Your task to perform on an android device: change your default location settings in chrome Image 0: 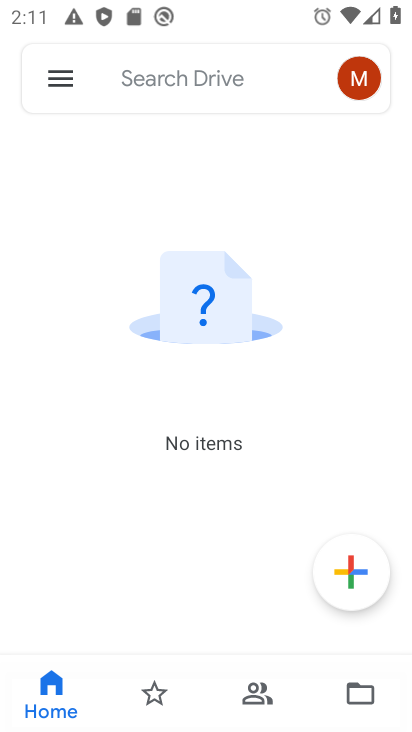
Step 0: press home button
Your task to perform on an android device: change your default location settings in chrome Image 1: 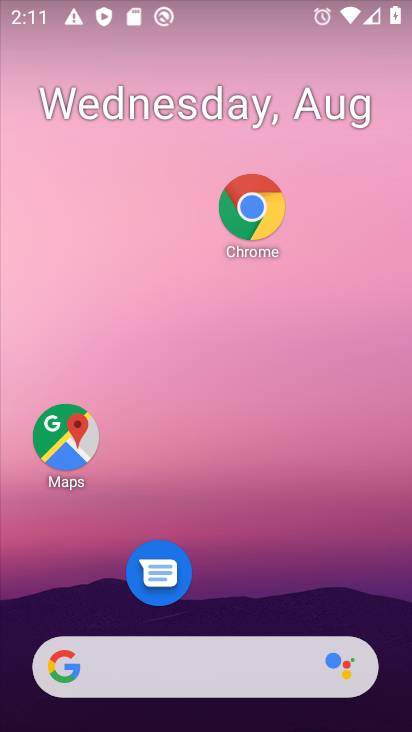
Step 1: drag from (220, 603) to (274, 143)
Your task to perform on an android device: change your default location settings in chrome Image 2: 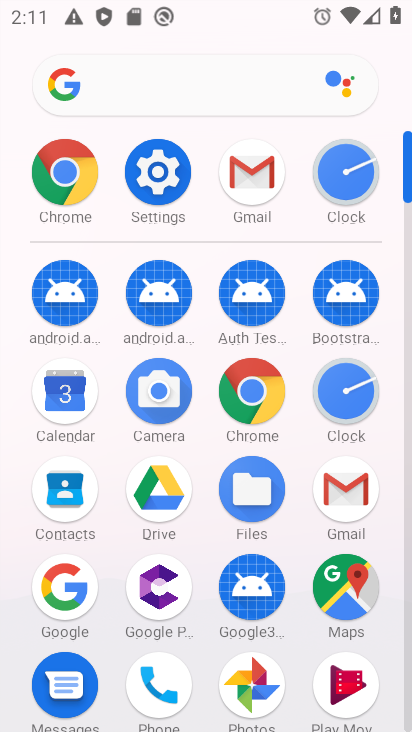
Step 2: drag from (162, 538) to (191, 230)
Your task to perform on an android device: change your default location settings in chrome Image 3: 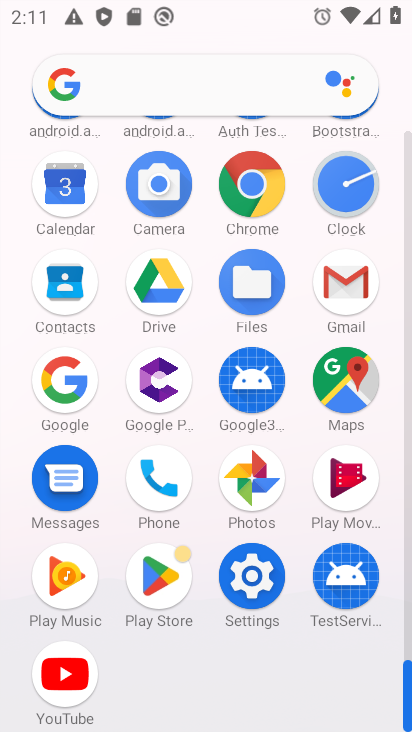
Step 3: click (272, 187)
Your task to perform on an android device: change your default location settings in chrome Image 4: 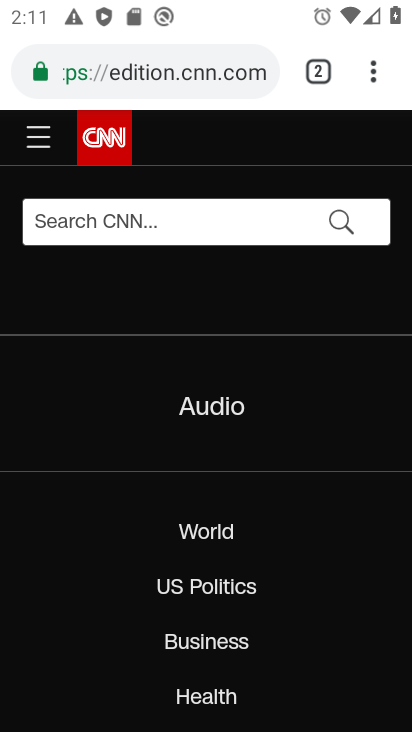
Step 4: click (379, 75)
Your task to perform on an android device: change your default location settings in chrome Image 5: 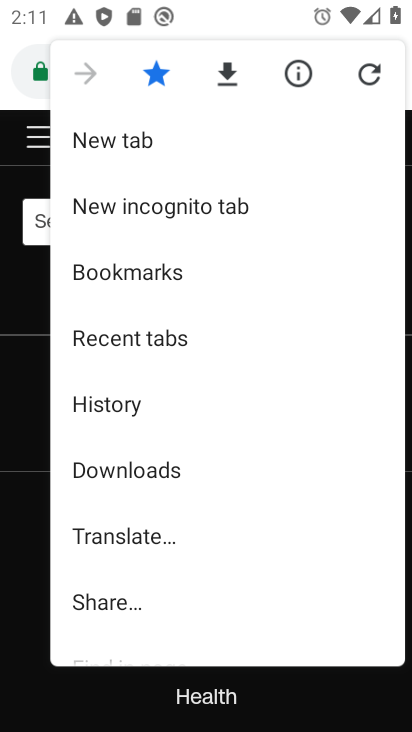
Step 5: drag from (155, 515) to (165, 204)
Your task to perform on an android device: change your default location settings in chrome Image 6: 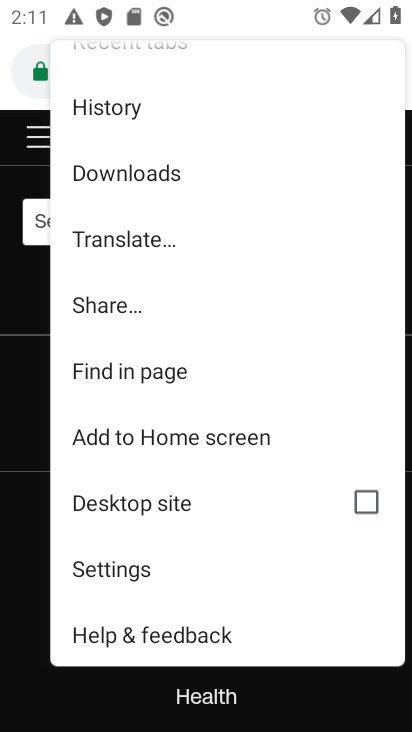
Step 6: click (129, 567)
Your task to perform on an android device: change your default location settings in chrome Image 7: 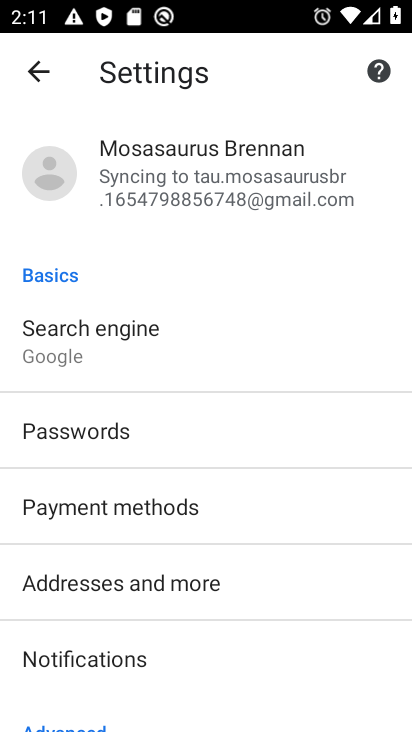
Step 7: drag from (132, 591) to (180, 267)
Your task to perform on an android device: change your default location settings in chrome Image 8: 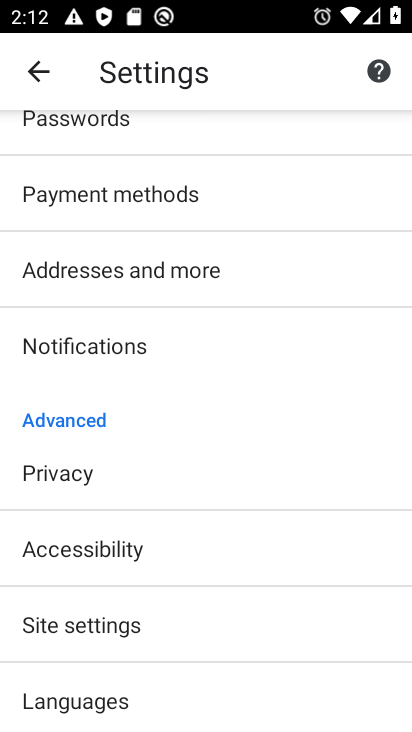
Step 8: click (57, 632)
Your task to perform on an android device: change your default location settings in chrome Image 9: 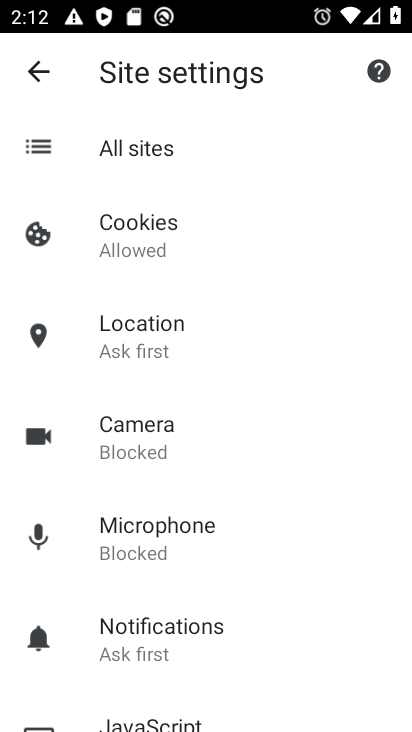
Step 9: click (138, 325)
Your task to perform on an android device: change your default location settings in chrome Image 10: 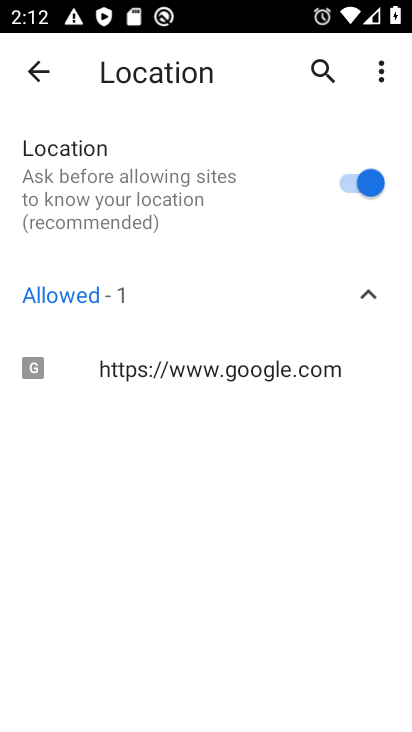
Step 10: click (324, 169)
Your task to perform on an android device: change your default location settings in chrome Image 11: 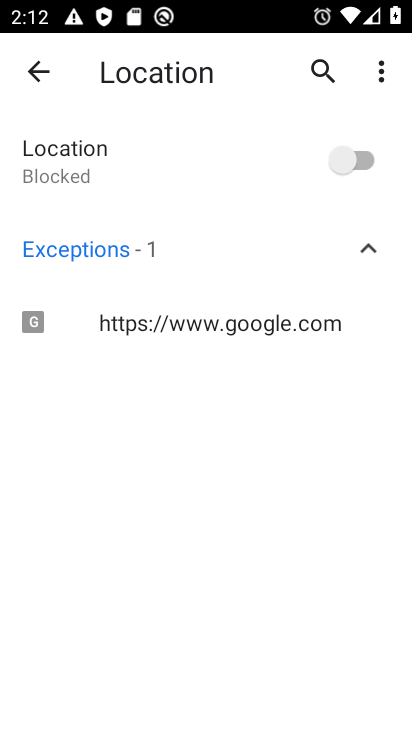
Step 11: task complete